Your task to perform on an android device: open a new tab in the chrome app Image 0: 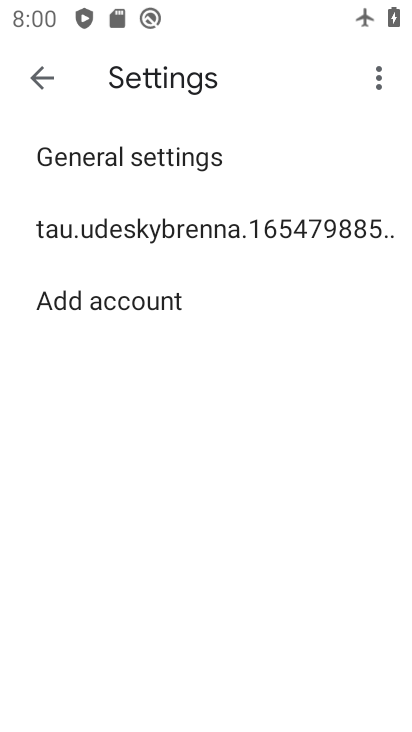
Step 0: press home button
Your task to perform on an android device: open a new tab in the chrome app Image 1: 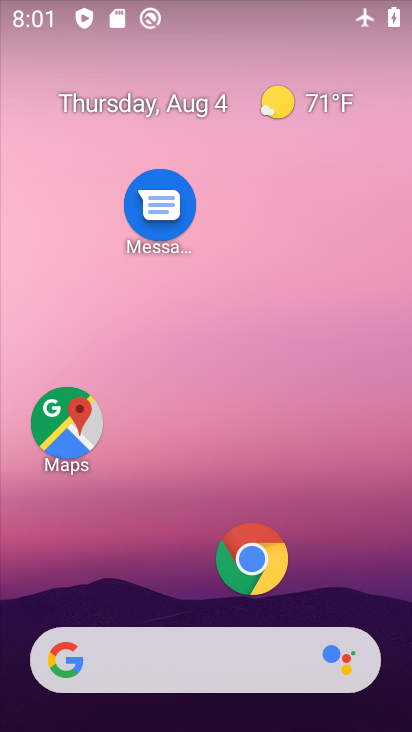
Step 1: drag from (210, 621) to (295, 366)
Your task to perform on an android device: open a new tab in the chrome app Image 2: 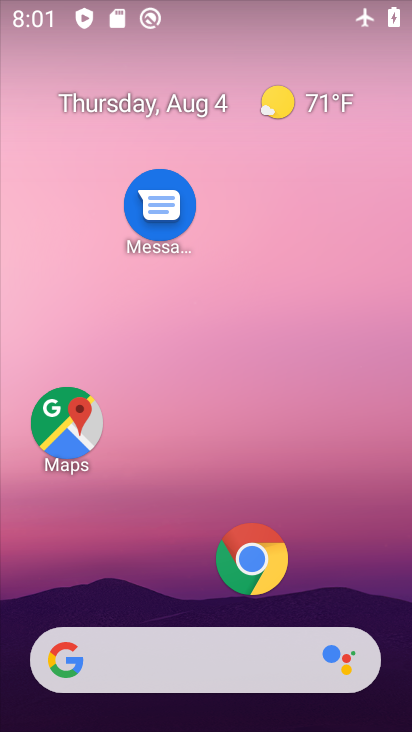
Step 2: click (234, 548)
Your task to perform on an android device: open a new tab in the chrome app Image 3: 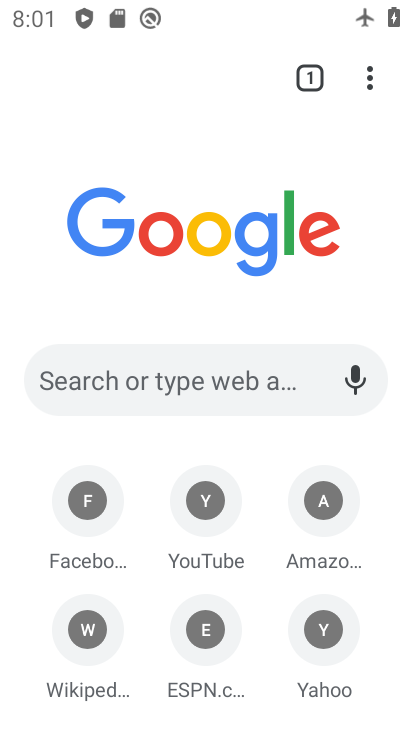
Step 3: click (298, 63)
Your task to perform on an android device: open a new tab in the chrome app Image 4: 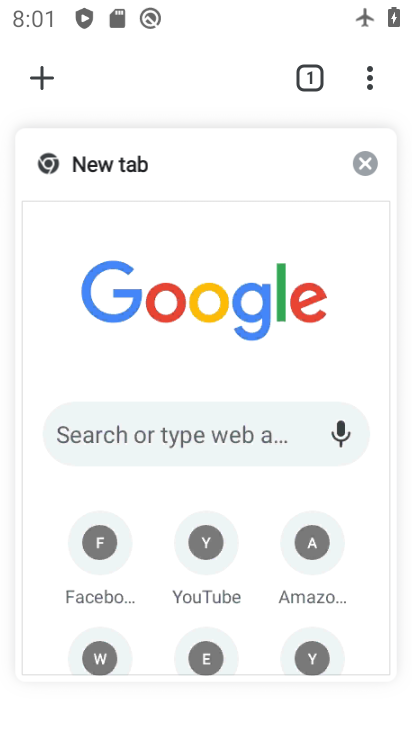
Step 4: click (20, 84)
Your task to perform on an android device: open a new tab in the chrome app Image 5: 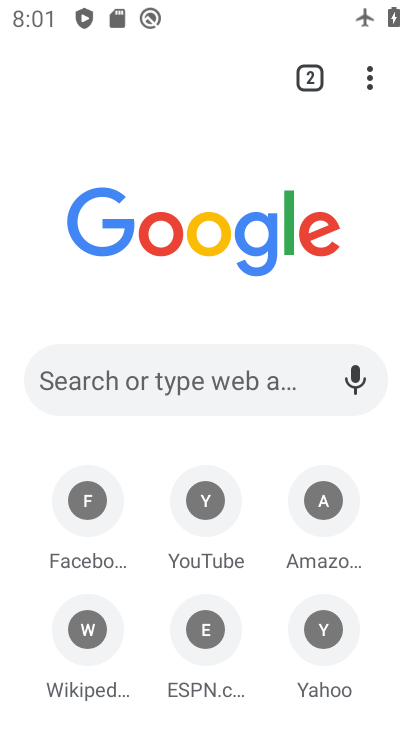
Step 5: task complete